Your task to perform on an android device: turn vacation reply on in the gmail app Image 0: 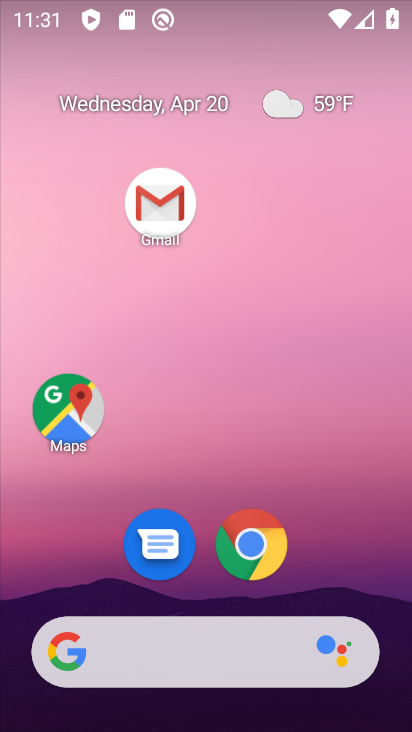
Step 0: click (146, 204)
Your task to perform on an android device: turn vacation reply on in the gmail app Image 1: 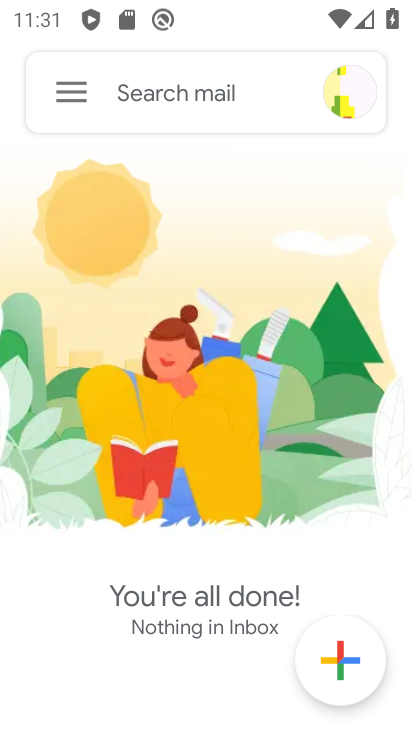
Step 1: click (57, 82)
Your task to perform on an android device: turn vacation reply on in the gmail app Image 2: 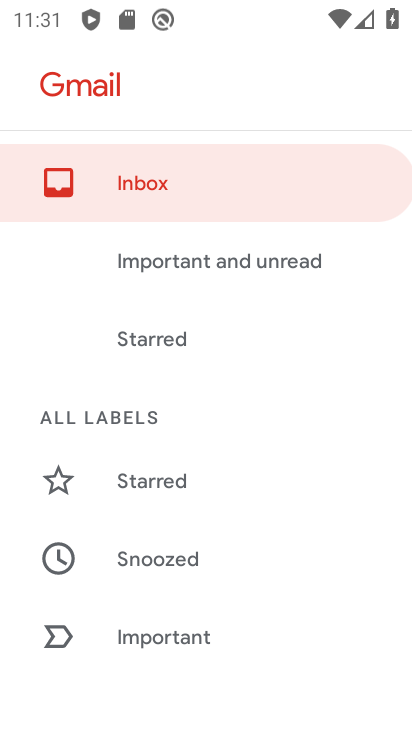
Step 2: drag from (270, 530) to (275, 71)
Your task to perform on an android device: turn vacation reply on in the gmail app Image 3: 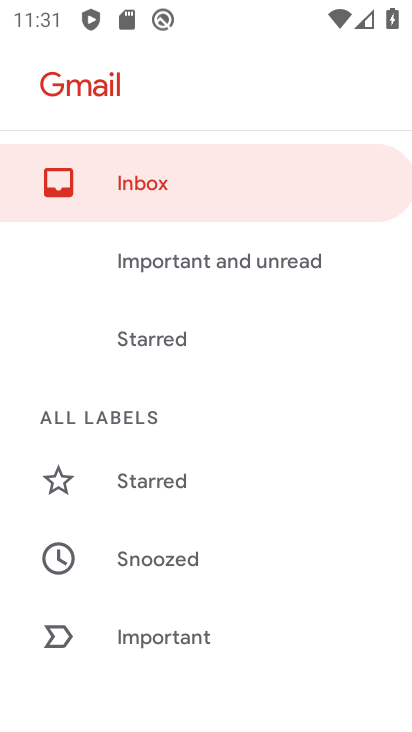
Step 3: drag from (255, 509) to (308, 43)
Your task to perform on an android device: turn vacation reply on in the gmail app Image 4: 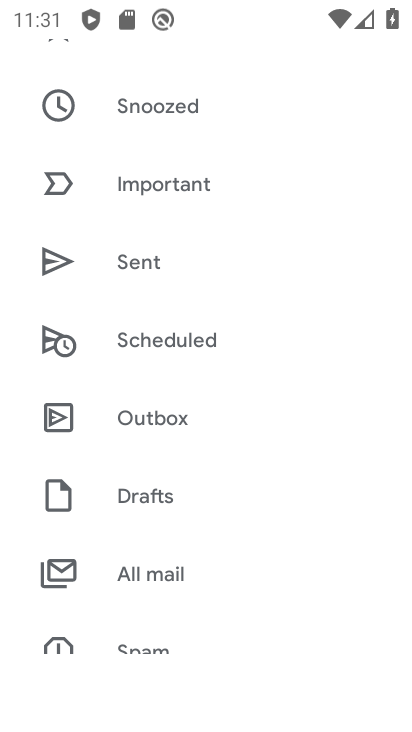
Step 4: drag from (259, 551) to (298, 22)
Your task to perform on an android device: turn vacation reply on in the gmail app Image 5: 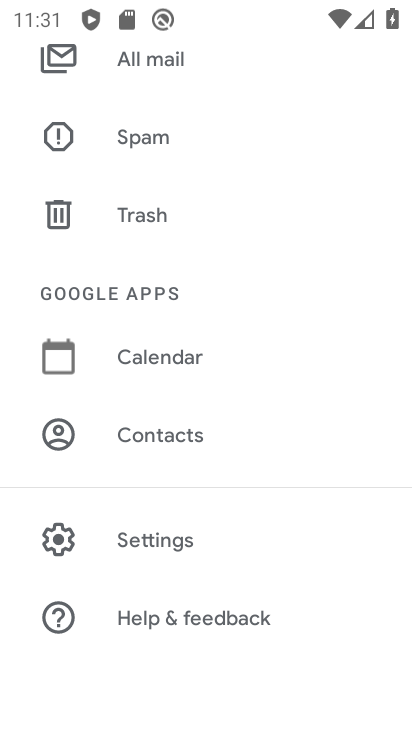
Step 5: click (187, 516)
Your task to perform on an android device: turn vacation reply on in the gmail app Image 6: 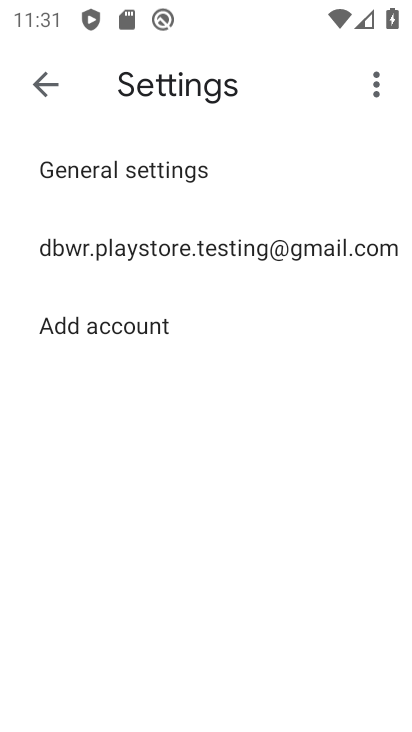
Step 6: click (273, 246)
Your task to perform on an android device: turn vacation reply on in the gmail app Image 7: 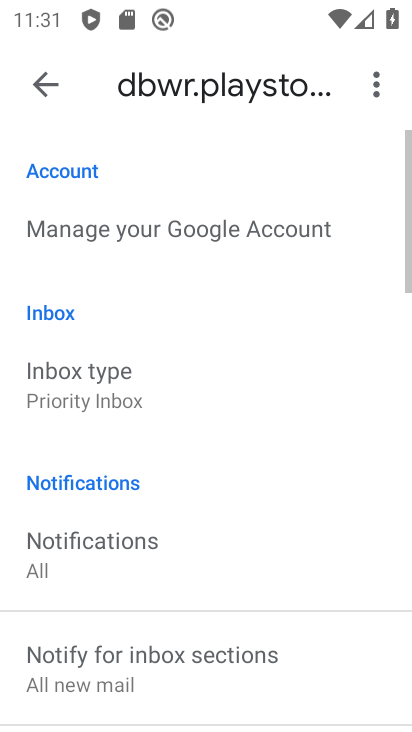
Step 7: drag from (252, 541) to (309, 168)
Your task to perform on an android device: turn vacation reply on in the gmail app Image 8: 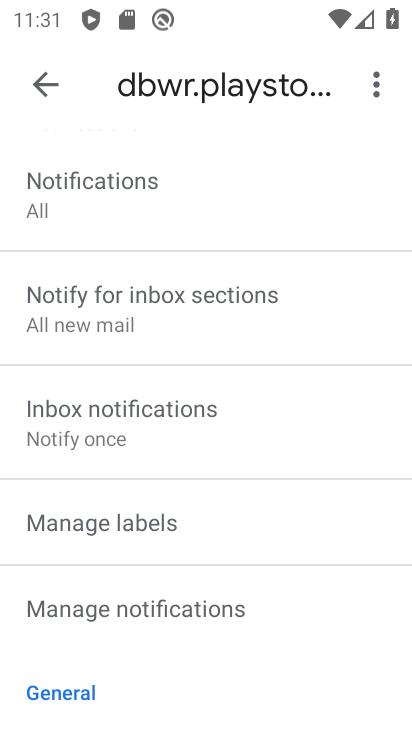
Step 8: drag from (289, 551) to (346, 82)
Your task to perform on an android device: turn vacation reply on in the gmail app Image 9: 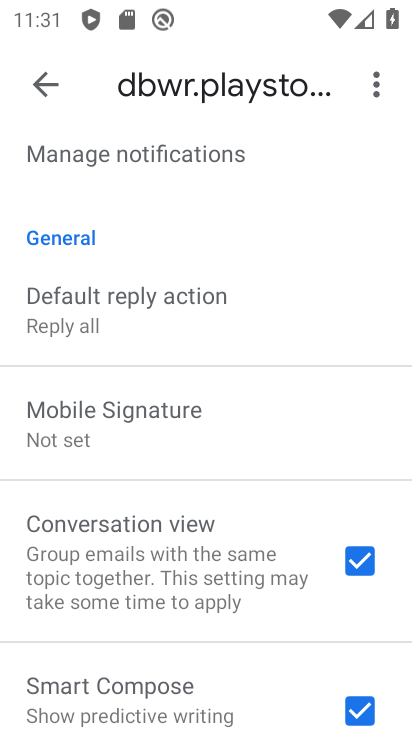
Step 9: drag from (203, 590) to (257, 60)
Your task to perform on an android device: turn vacation reply on in the gmail app Image 10: 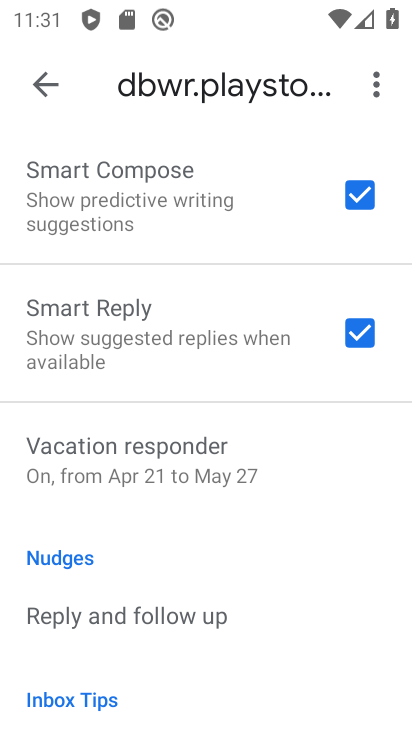
Step 10: click (222, 470)
Your task to perform on an android device: turn vacation reply on in the gmail app Image 11: 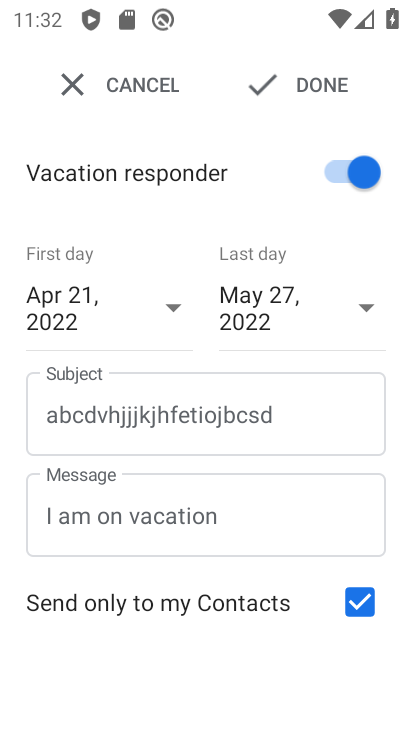
Step 11: click (326, 98)
Your task to perform on an android device: turn vacation reply on in the gmail app Image 12: 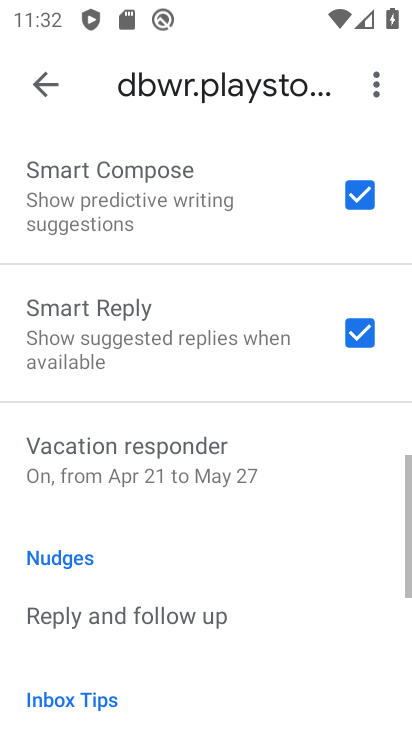
Step 12: task complete